Your task to perform on an android device: Go to privacy settings Image 0: 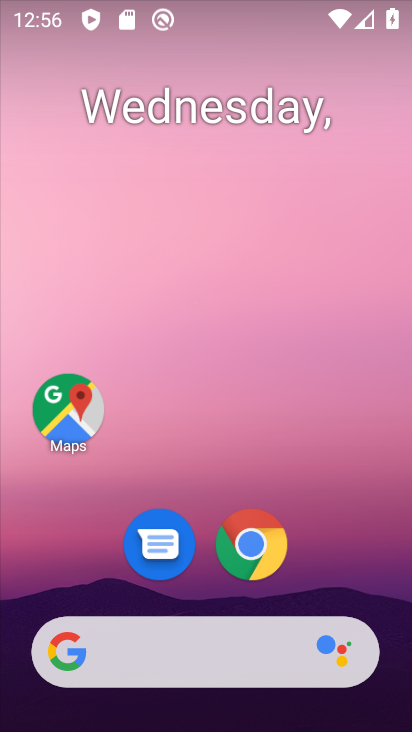
Step 0: click (261, 545)
Your task to perform on an android device: Go to privacy settings Image 1: 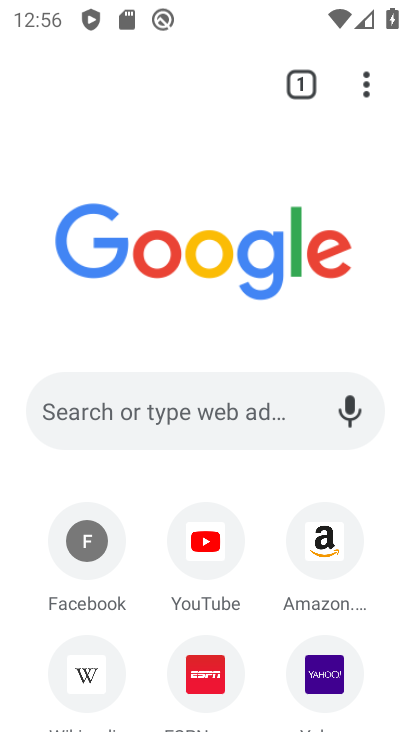
Step 1: click (358, 90)
Your task to perform on an android device: Go to privacy settings Image 2: 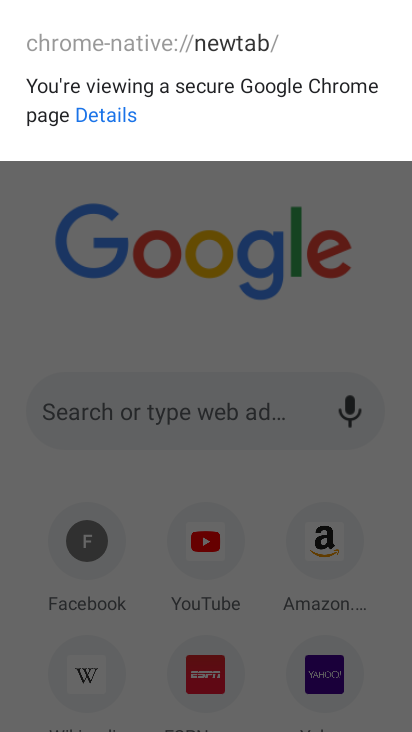
Step 2: click (351, 189)
Your task to perform on an android device: Go to privacy settings Image 3: 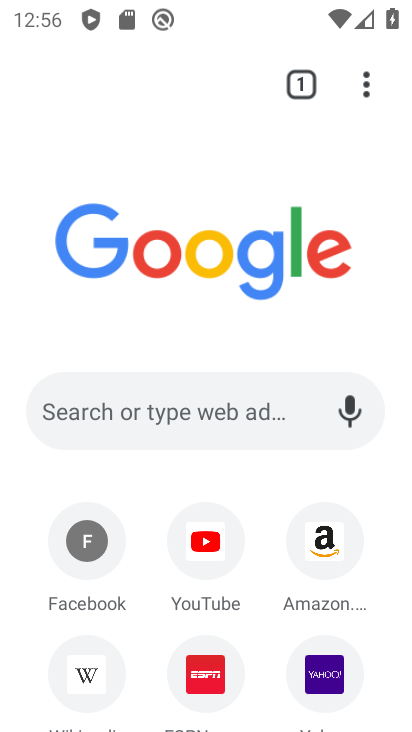
Step 3: click (369, 87)
Your task to perform on an android device: Go to privacy settings Image 4: 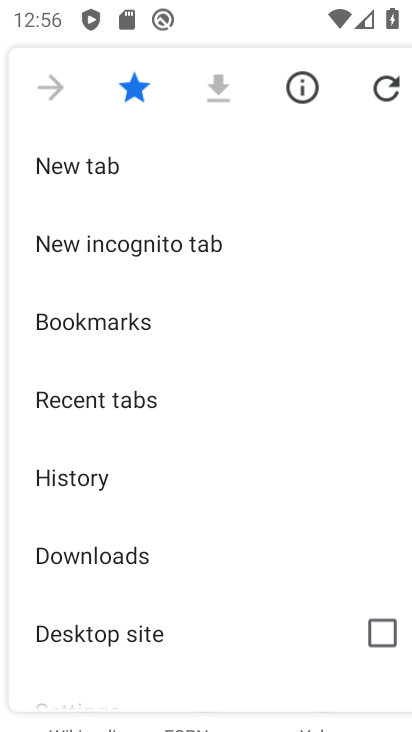
Step 4: drag from (104, 615) to (113, 365)
Your task to perform on an android device: Go to privacy settings Image 5: 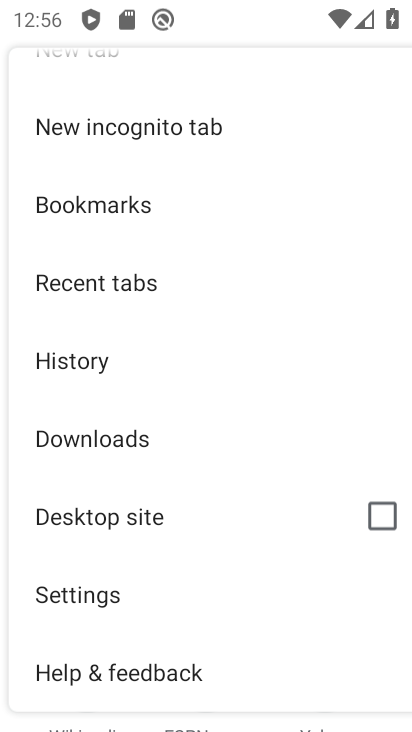
Step 5: drag from (143, 617) to (153, 527)
Your task to perform on an android device: Go to privacy settings Image 6: 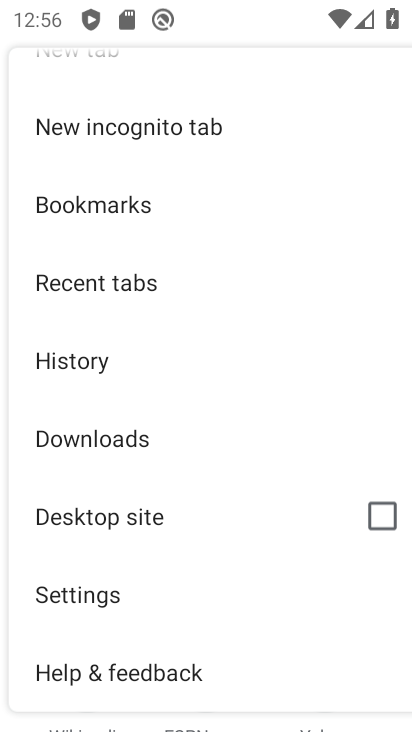
Step 6: click (121, 576)
Your task to perform on an android device: Go to privacy settings Image 7: 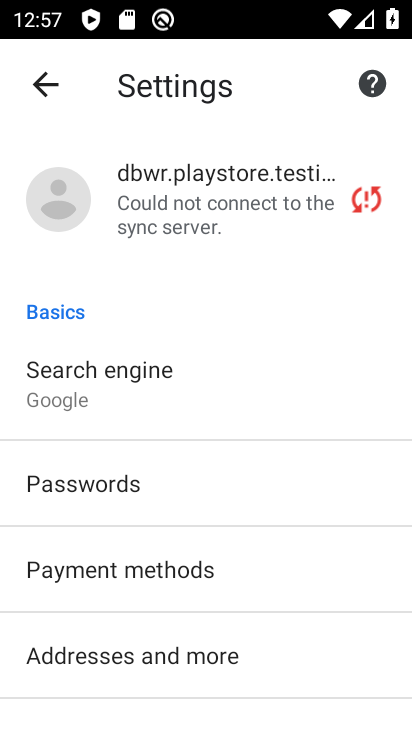
Step 7: drag from (90, 607) to (83, 278)
Your task to perform on an android device: Go to privacy settings Image 8: 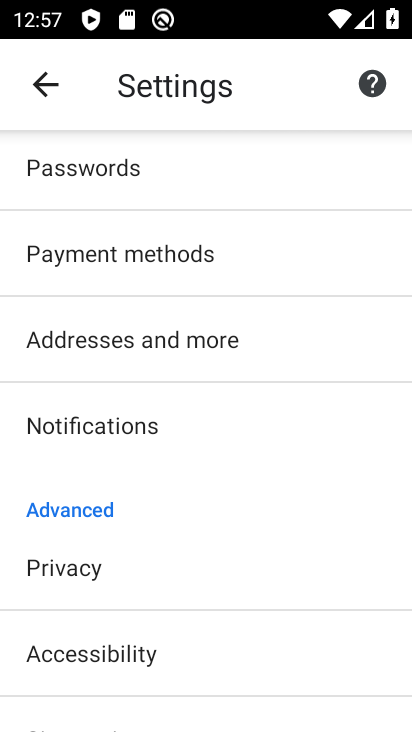
Step 8: click (50, 565)
Your task to perform on an android device: Go to privacy settings Image 9: 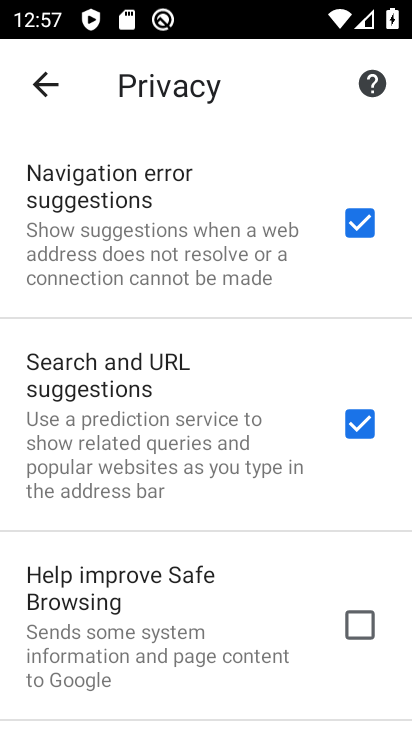
Step 9: task complete